Your task to perform on an android device: Open settings Image 0: 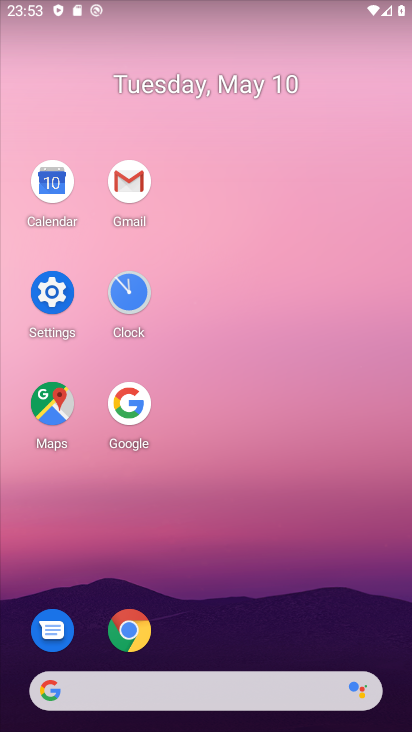
Step 0: click (64, 298)
Your task to perform on an android device: Open settings Image 1: 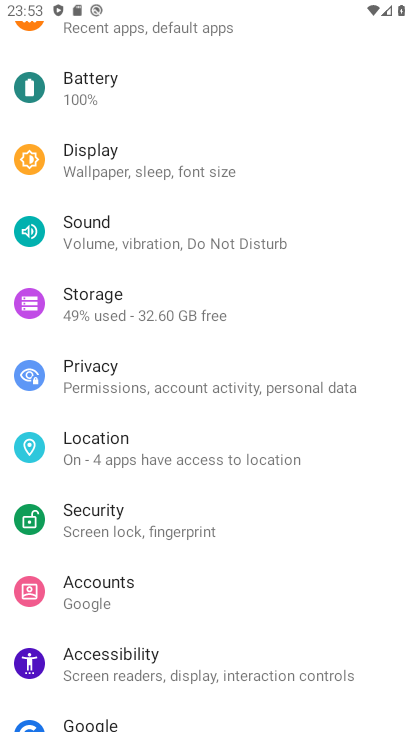
Step 1: task complete